Your task to perform on an android device: open chrome and create a bookmark for the current page Image 0: 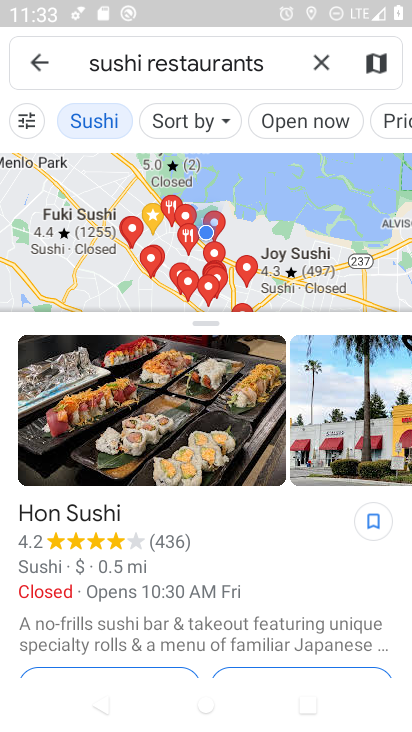
Step 0: press back button
Your task to perform on an android device: open chrome and create a bookmark for the current page Image 1: 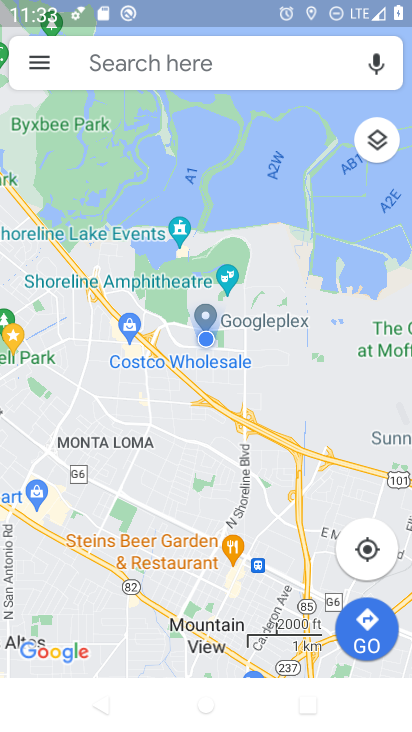
Step 1: press back button
Your task to perform on an android device: open chrome and create a bookmark for the current page Image 2: 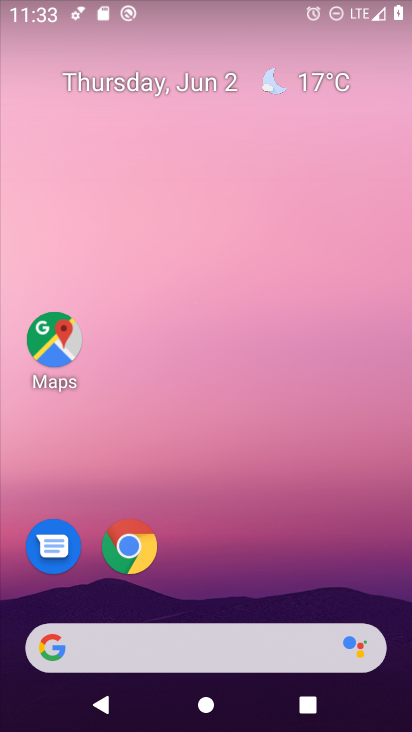
Step 2: drag from (238, 534) to (57, 8)
Your task to perform on an android device: open chrome and create a bookmark for the current page Image 3: 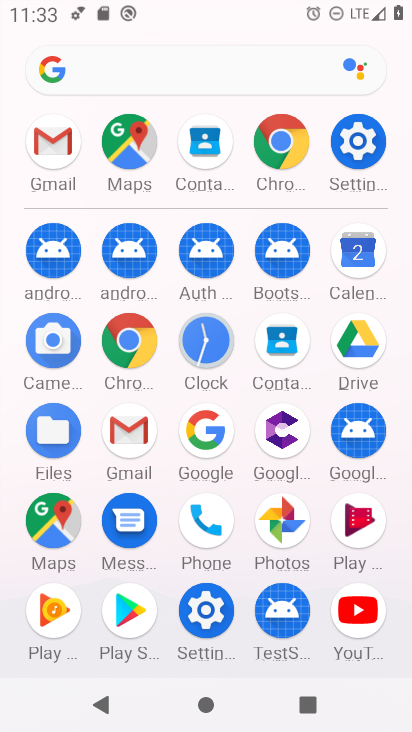
Step 3: click (127, 338)
Your task to perform on an android device: open chrome and create a bookmark for the current page Image 4: 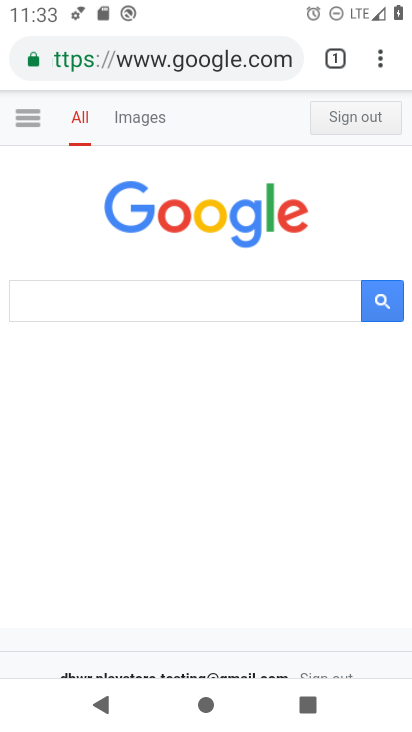
Step 4: drag from (381, 55) to (206, 215)
Your task to perform on an android device: open chrome and create a bookmark for the current page Image 5: 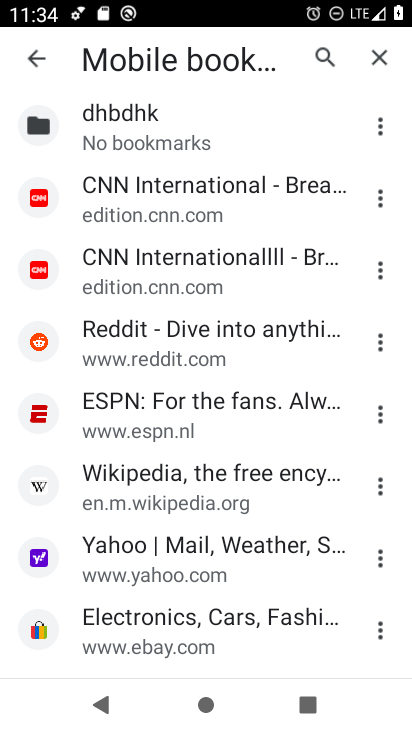
Step 5: click (39, 57)
Your task to perform on an android device: open chrome and create a bookmark for the current page Image 6: 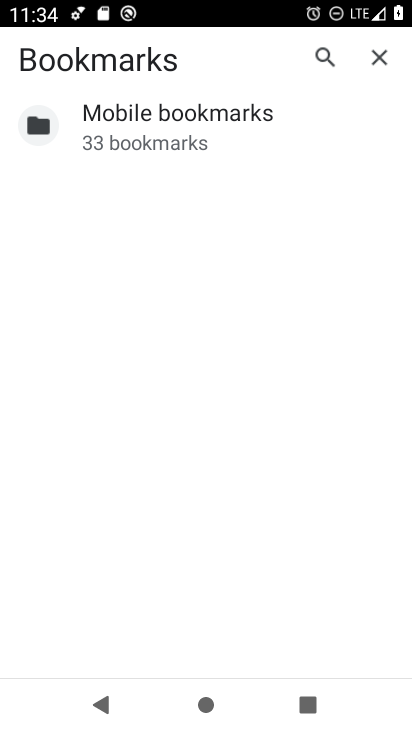
Step 6: click (380, 57)
Your task to perform on an android device: open chrome and create a bookmark for the current page Image 7: 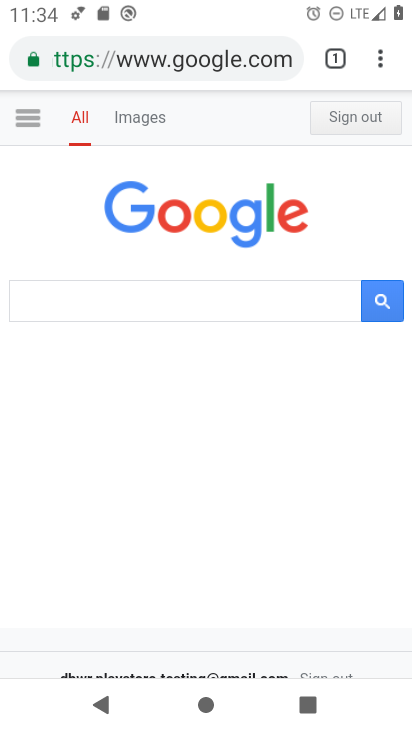
Step 7: task complete